Your task to perform on an android device: Open Reddit.com Image 0: 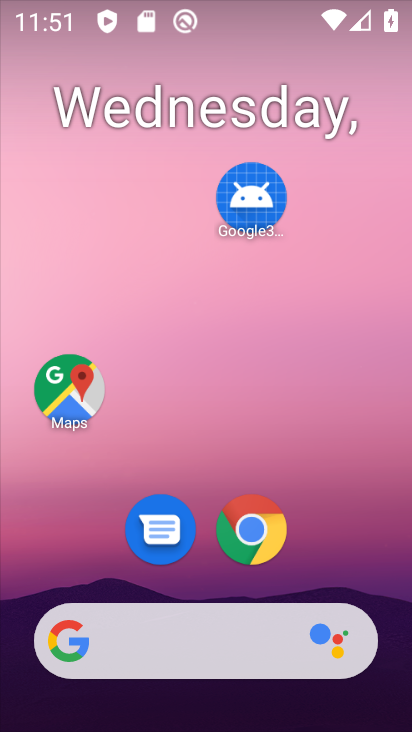
Step 0: click (185, 653)
Your task to perform on an android device: Open Reddit.com Image 1: 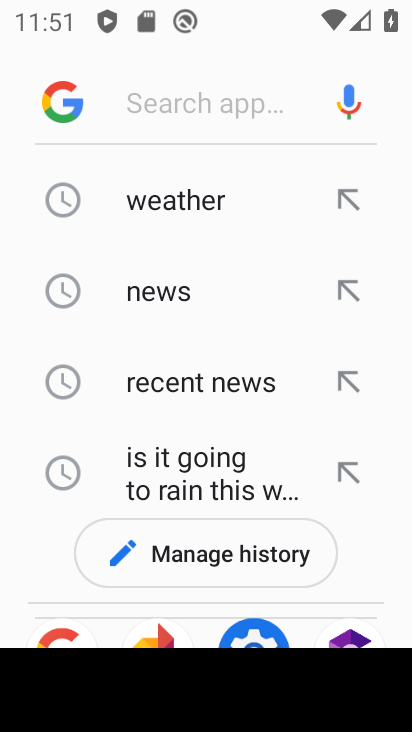
Step 1: type "Reddit.com"
Your task to perform on an android device: Open Reddit.com Image 2: 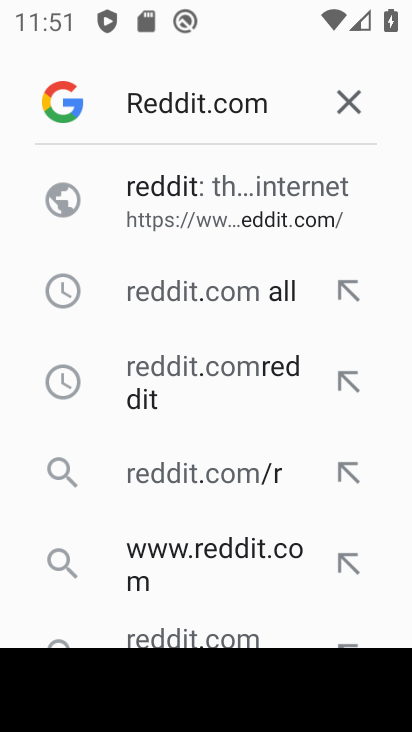
Step 2: click (195, 224)
Your task to perform on an android device: Open Reddit.com Image 3: 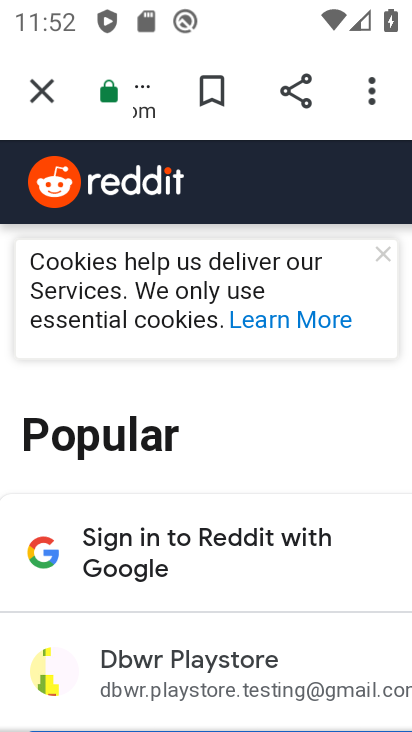
Step 3: task complete